Your task to perform on an android device: Open the calendar app, open the side menu, and click the "Day" option Image 0: 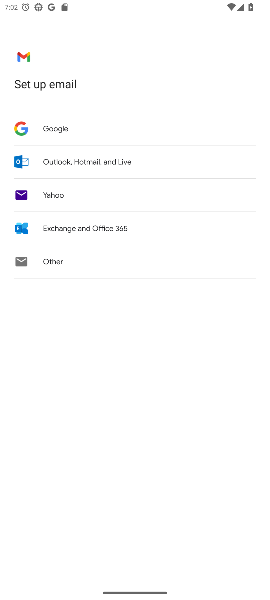
Step 0: press home button
Your task to perform on an android device: Open the calendar app, open the side menu, and click the "Day" option Image 1: 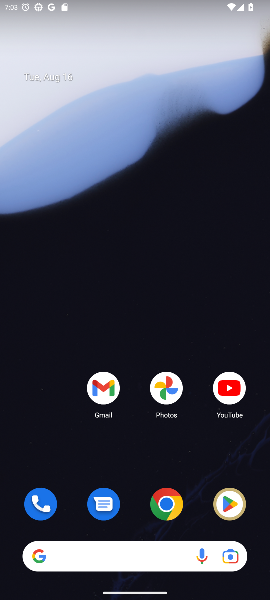
Step 1: drag from (30, 578) to (163, 302)
Your task to perform on an android device: Open the calendar app, open the side menu, and click the "Day" option Image 2: 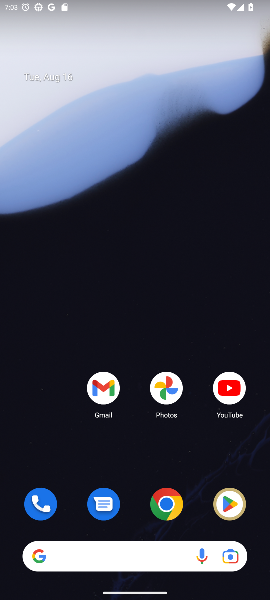
Step 2: drag from (30, 570) to (65, 242)
Your task to perform on an android device: Open the calendar app, open the side menu, and click the "Day" option Image 3: 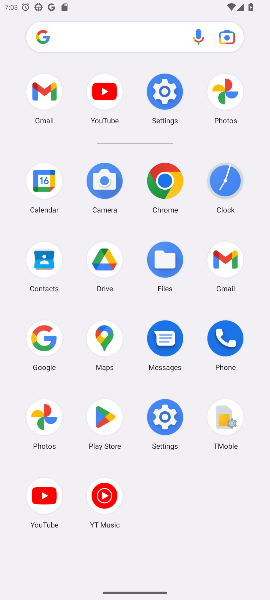
Step 3: click (46, 190)
Your task to perform on an android device: Open the calendar app, open the side menu, and click the "Day" option Image 4: 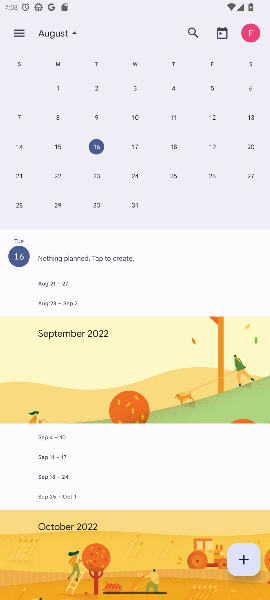
Step 4: click (24, 28)
Your task to perform on an android device: Open the calendar app, open the side menu, and click the "Day" option Image 5: 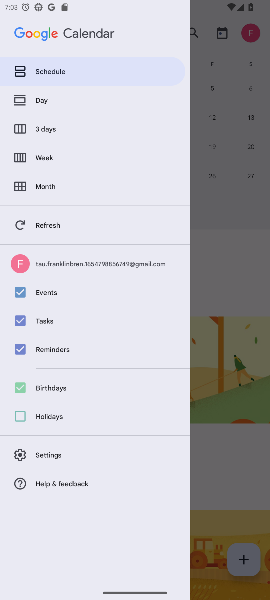
Step 5: click (47, 109)
Your task to perform on an android device: Open the calendar app, open the side menu, and click the "Day" option Image 6: 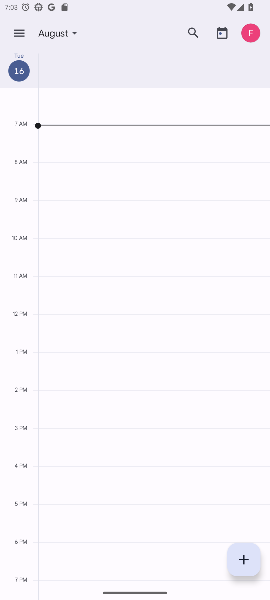
Step 6: task complete